Your task to perform on an android device: Go to location settings Image 0: 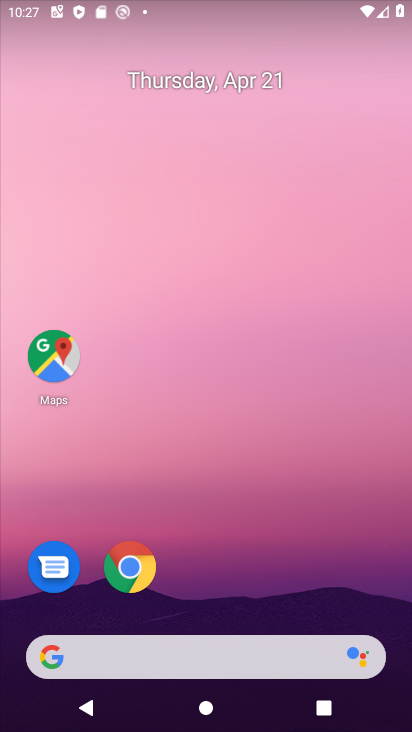
Step 0: drag from (226, 623) to (307, 147)
Your task to perform on an android device: Go to location settings Image 1: 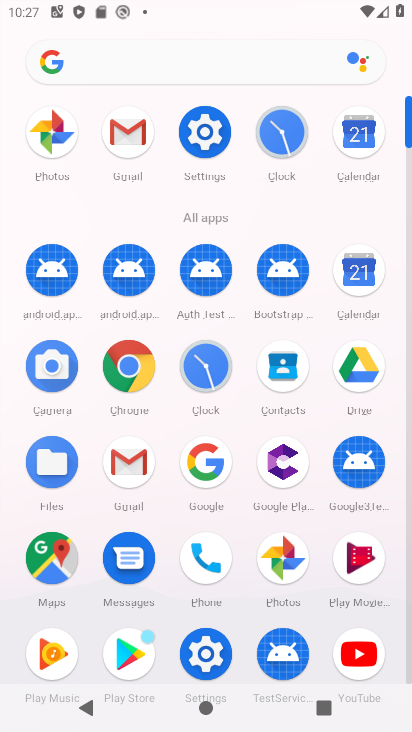
Step 1: click (195, 146)
Your task to perform on an android device: Go to location settings Image 2: 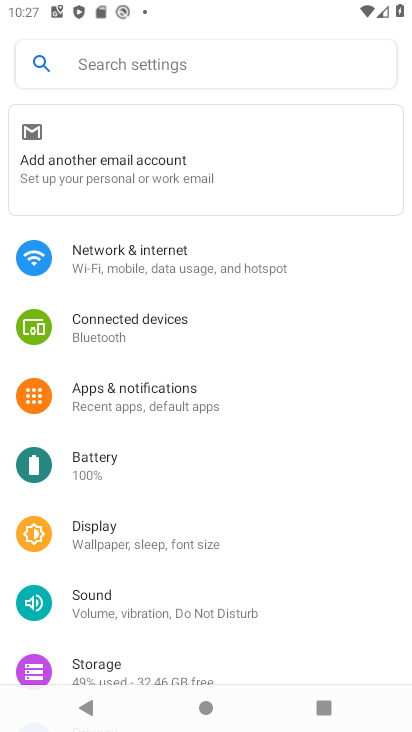
Step 2: drag from (113, 594) to (190, 215)
Your task to perform on an android device: Go to location settings Image 3: 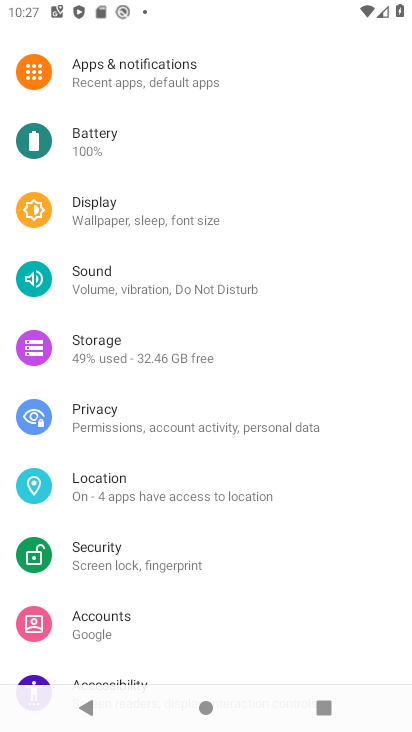
Step 3: click (143, 493)
Your task to perform on an android device: Go to location settings Image 4: 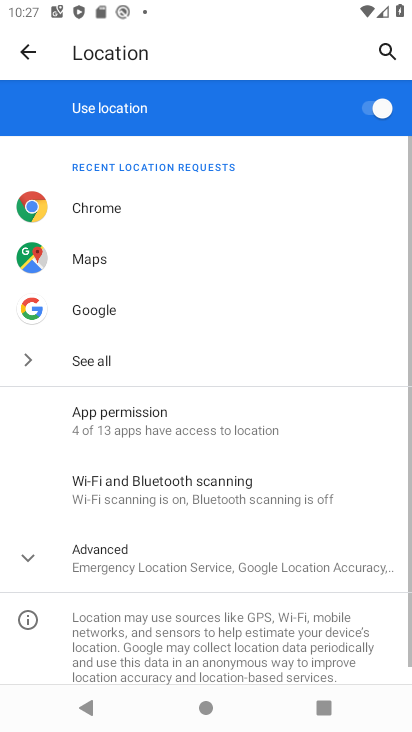
Step 4: task complete